Your task to perform on an android device: Open sound settings Image 0: 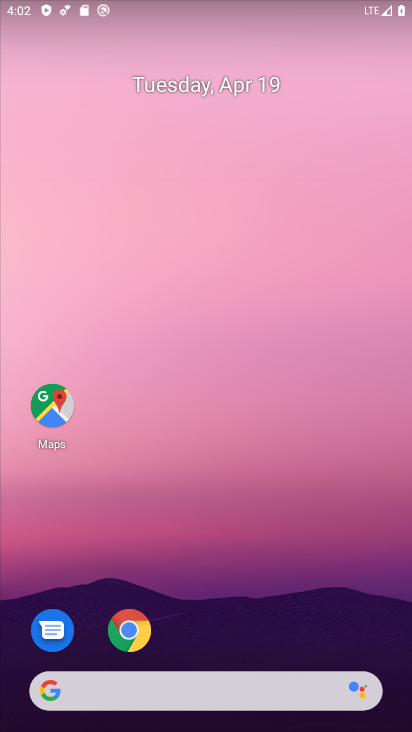
Step 0: drag from (231, 631) to (231, 85)
Your task to perform on an android device: Open sound settings Image 1: 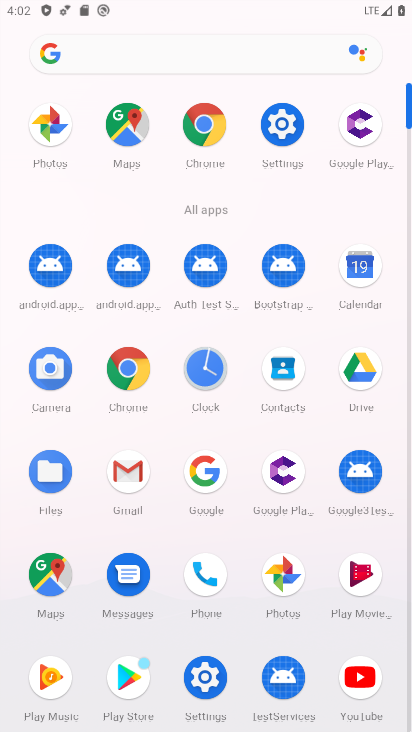
Step 1: click (284, 126)
Your task to perform on an android device: Open sound settings Image 2: 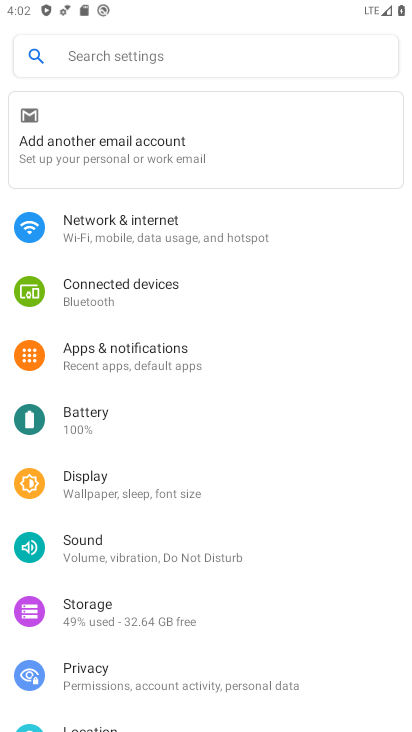
Step 2: click (120, 551)
Your task to perform on an android device: Open sound settings Image 3: 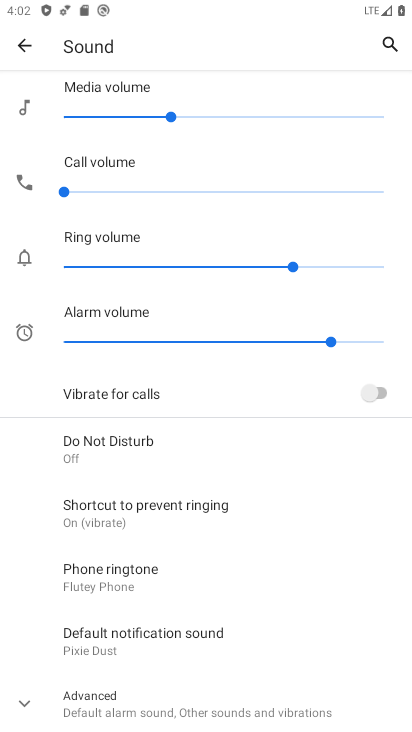
Step 3: task complete